Your task to perform on an android device: change keyboard looks Image 0: 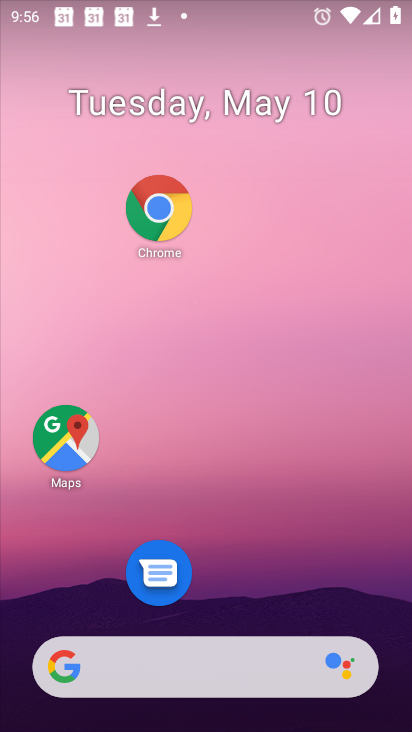
Step 0: drag from (247, 703) to (320, 245)
Your task to perform on an android device: change keyboard looks Image 1: 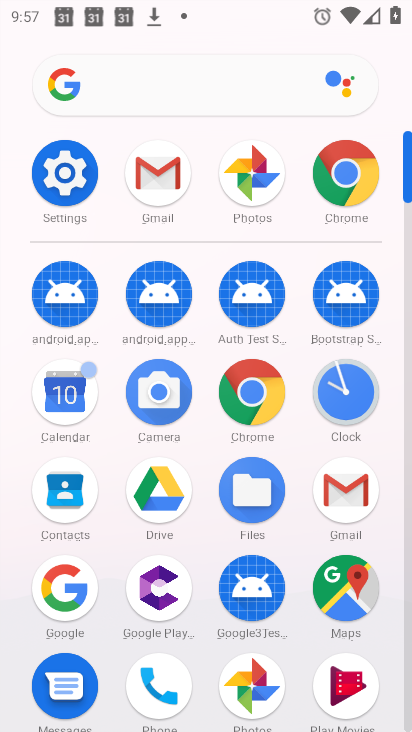
Step 1: click (75, 180)
Your task to perform on an android device: change keyboard looks Image 2: 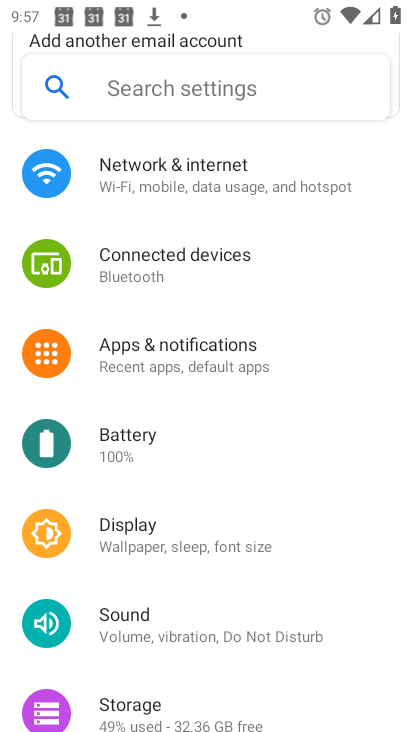
Step 2: click (223, 82)
Your task to perform on an android device: change keyboard looks Image 3: 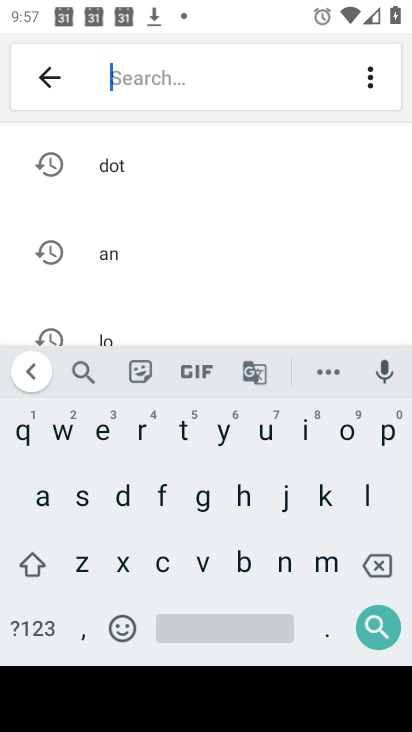
Step 3: click (327, 496)
Your task to perform on an android device: change keyboard looks Image 4: 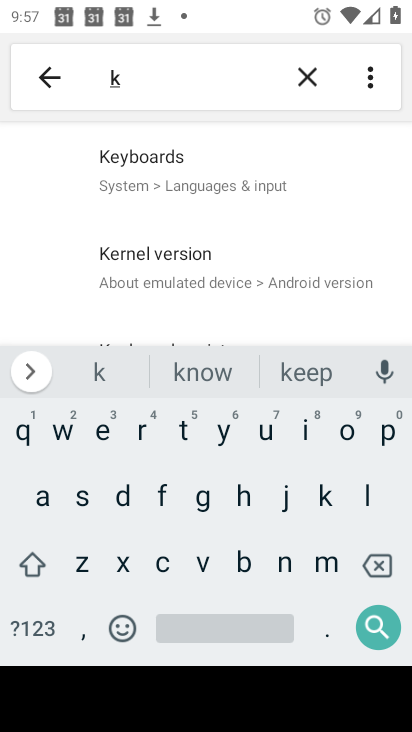
Step 4: click (90, 432)
Your task to perform on an android device: change keyboard looks Image 5: 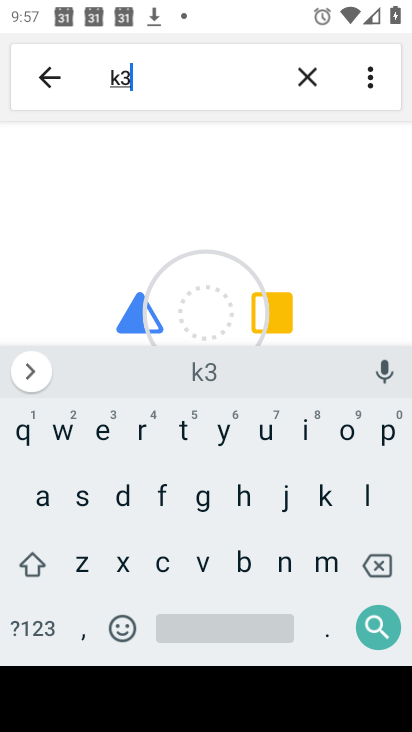
Step 5: click (384, 564)
Your task to perform on an android device: change keyboard looks Image 6: 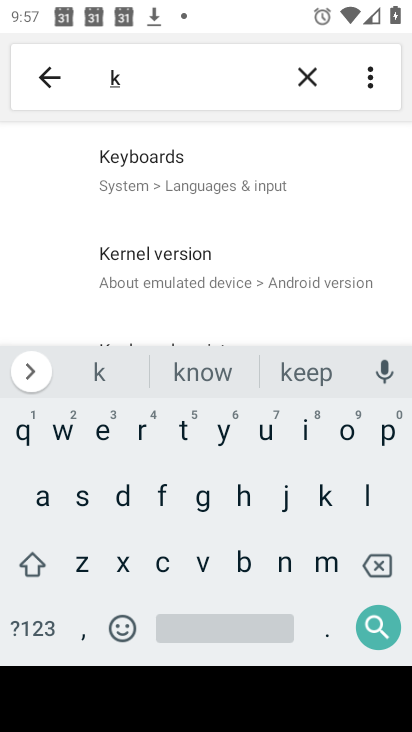
Step 6: click (206, 176)
Your task to perform on an android device: change keyboard looks Image 7: 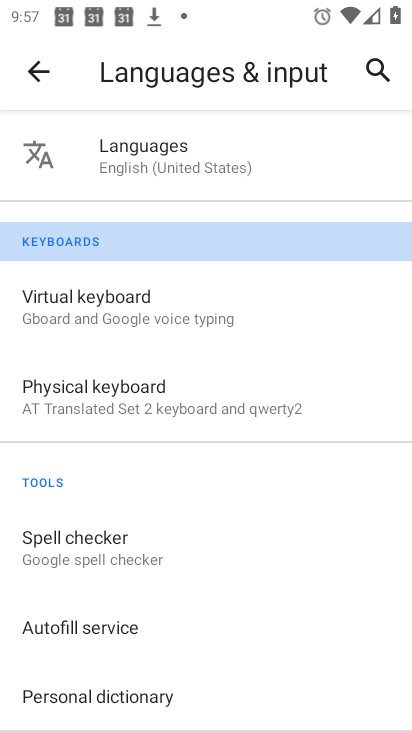
Step 7: click (152, 311)
Your task to perform on an android device: change keyboard looks Image 8: 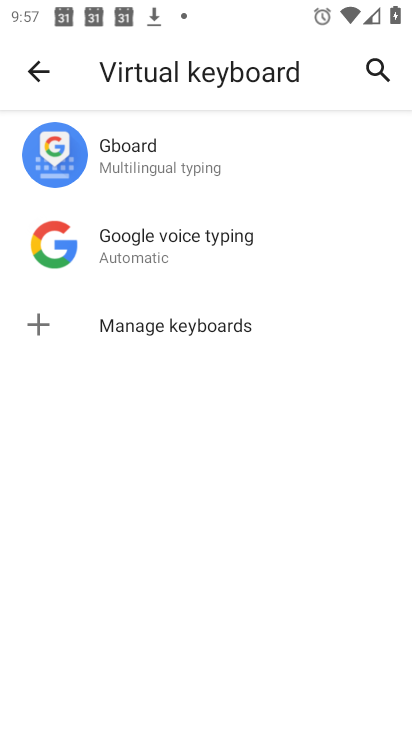
Step 8: click (216, 161)
Your task to perform on an android device: change keyboard looks Image 9: 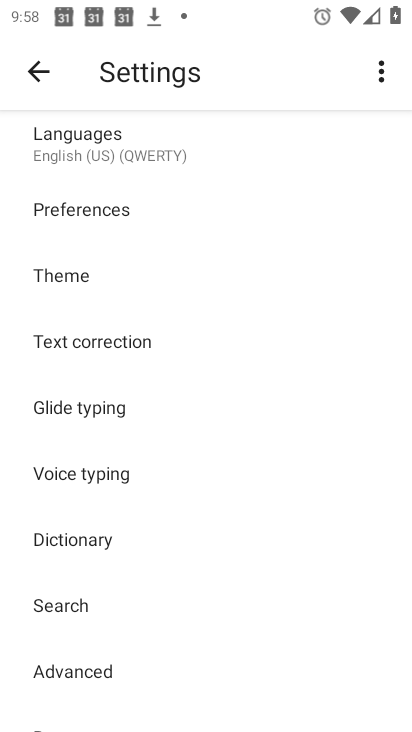
Step 9: click (96, 269)
Your task to perform on an android device: change keyboard looks Image 10: 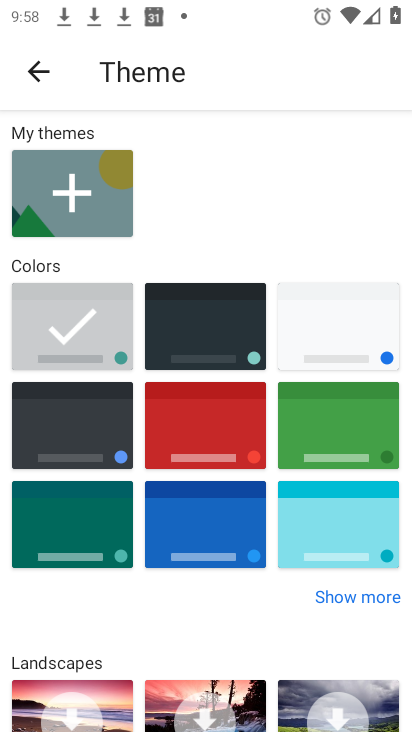
Step 10: click (165, 531)
Your task to perform on an android device: change keyboard looks Image 11: 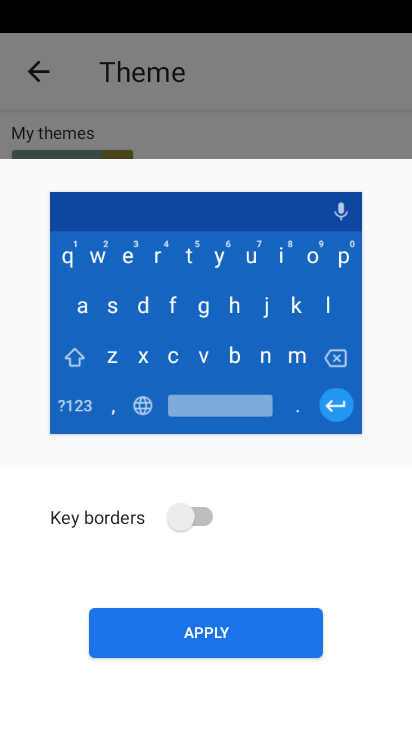
Step 11: click (188, 512)
Your task to perform on an android device: change keyboard looks Image 12: 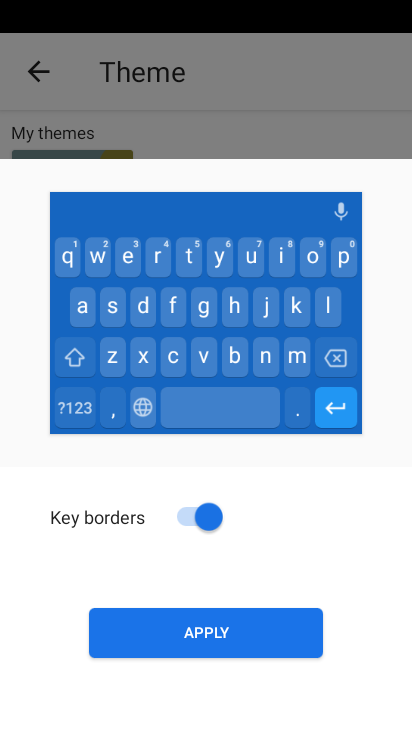
Step 12: click (204, 621)
Your task to perform on an android device: change keyboard looks Image 13: 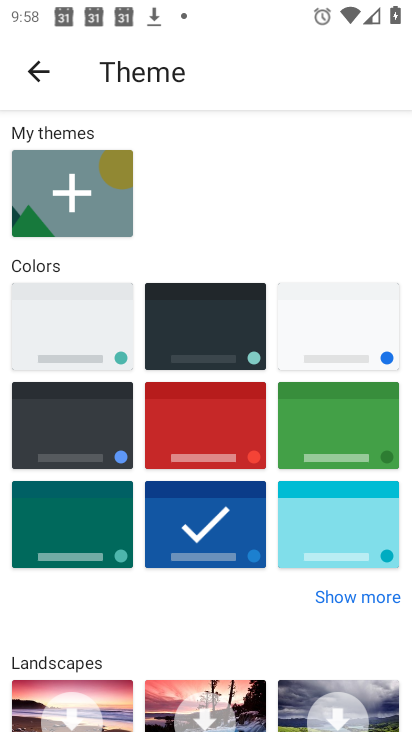
Step 13: task complete